Your task to perform on an android device: Go to Google maps Image 0: 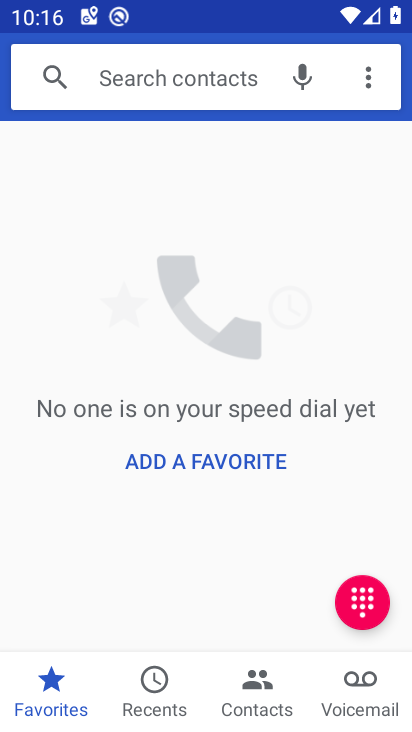
Step 0: press back button
Your task to perform on an android device: Go to Google maps Image 1: 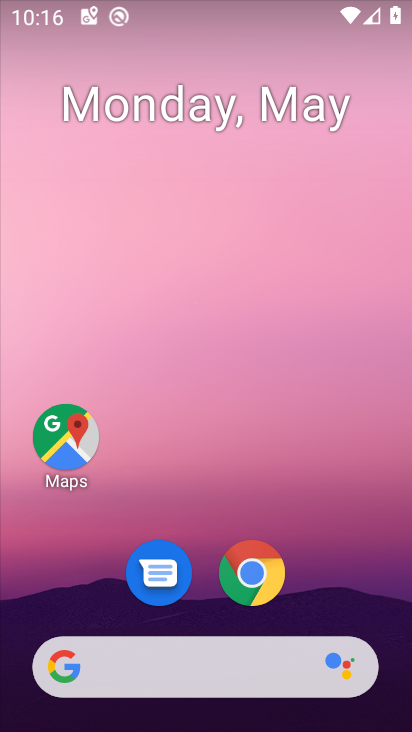
Step 1: click (59, 428)
Your task to perform on an android device: Go to Google maps Image 2: 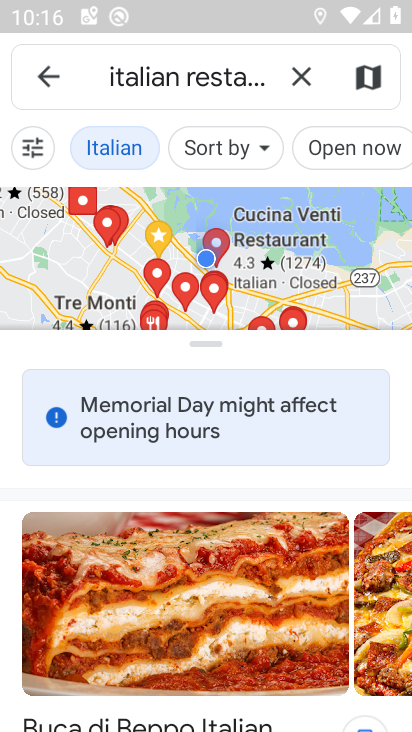
Step 2: task complete